Your task to perform on an android device: turn off javascript in the chrome app Image 0: 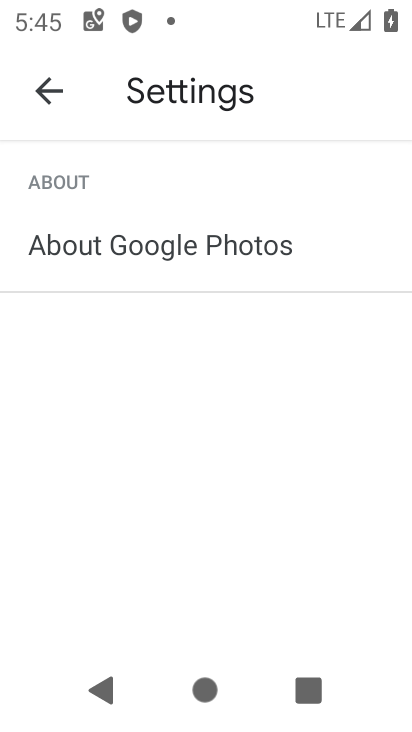
Step 0: press home button
Your task to perform on an android device: turn off javascript in the chrome app Image 1: 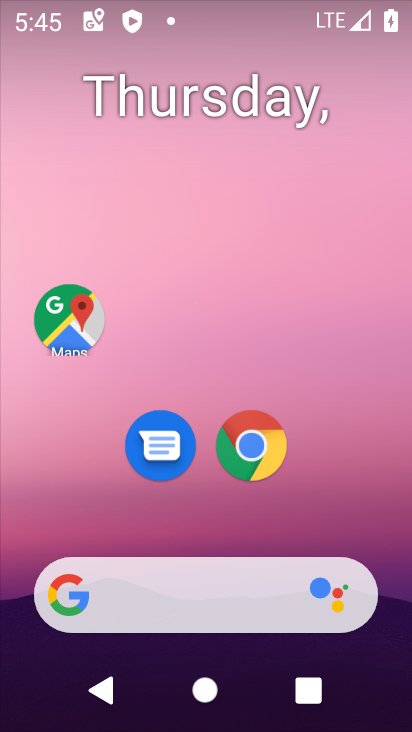
Step 1: click (265, 445)
Your task to perform on an android device: turn off javascript in the chrome app Image 2: 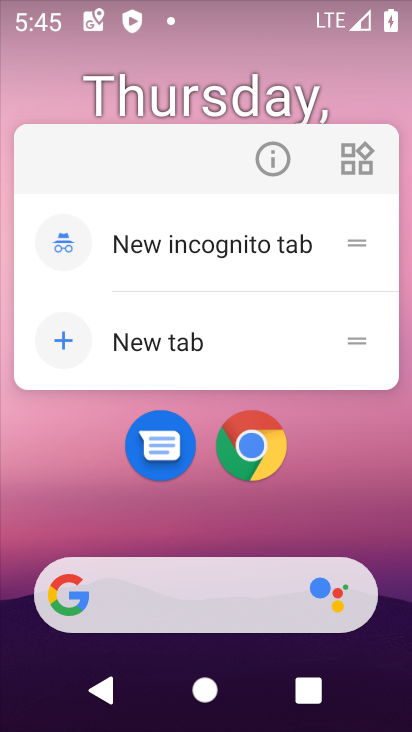
Step 2: click (253, 446)
Your task to perform on an android device: turn off javascript in the chrome app Image 3: 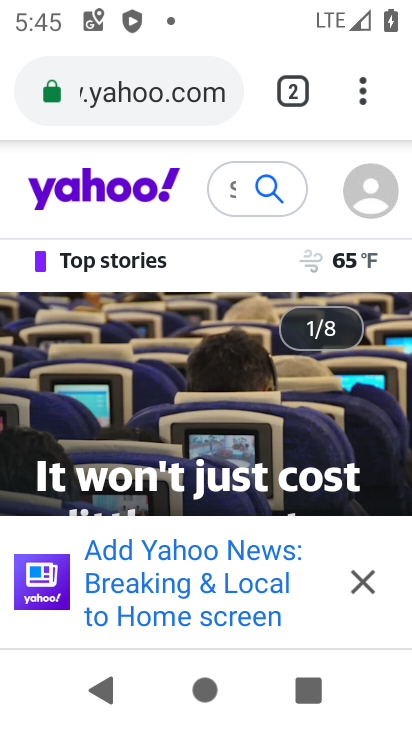
Step 3: click (353, 91)
Your task to perform on an android device: turn off javascript in the chrome app Image 4: 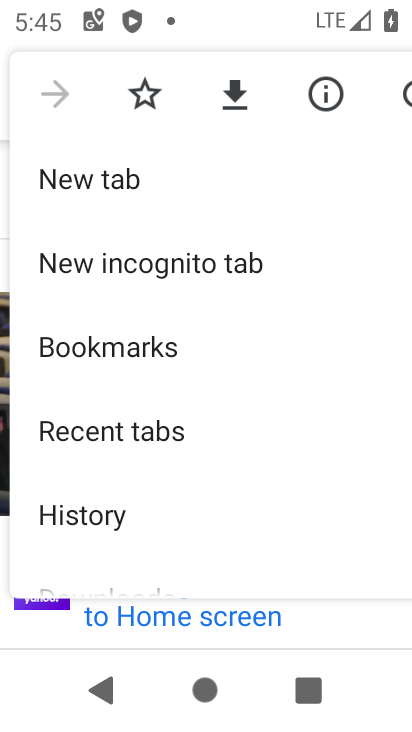
Step 4: drag from (353, 91) to (397, 448)
Your task to perform on an android device: turn off javascript in the chrome app Image 5: 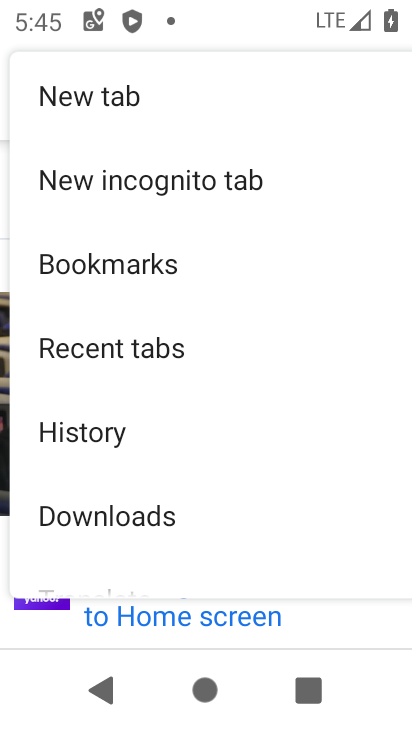
Step 5: drag from (200, 529) to (263, 253)
Your task to perform on an android device: turn off javascript in the chrome app Image 6: 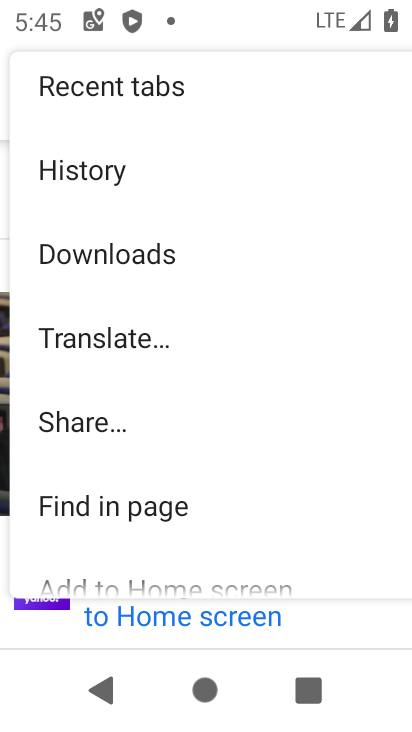
Step 6: drag from (211, 451) to (227, 233)
Your task to perform on an android device: turn off javascript in the chrome app Image 7: 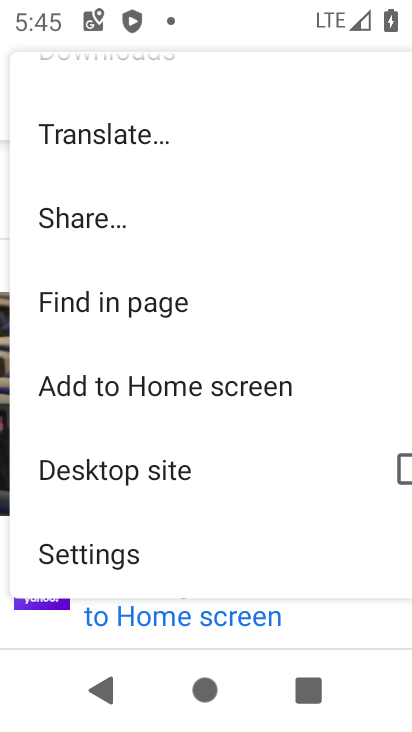
Step 7: click (105, 553)
Your task to perform on an android device: turn off javascript in the chrome app Image 8: 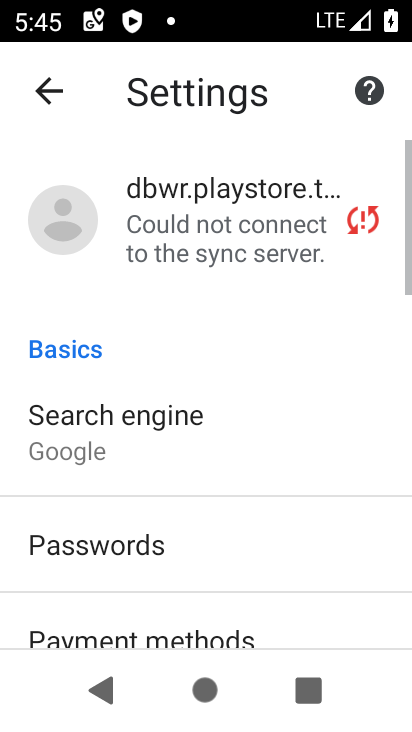
Step 8: drag from (235, 578) to (234, 293)
Your task to perform on an android device: turn off javascript in the chrome app Image 9: 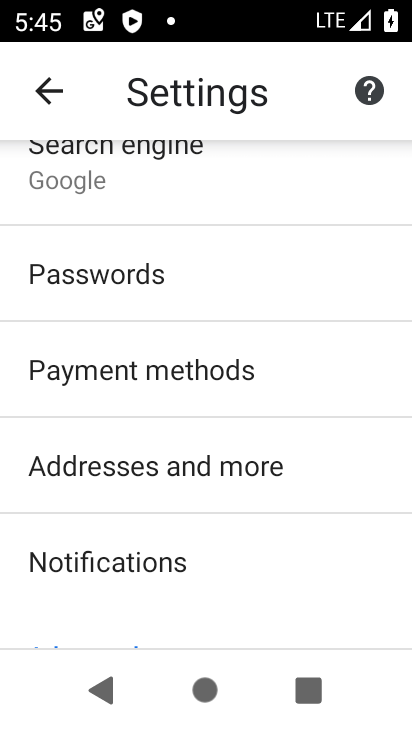
Step 9: drag from (257, 580) to (269, 271)
Your task to perform on an android device: turn off javascript in the chrome app Image 10: 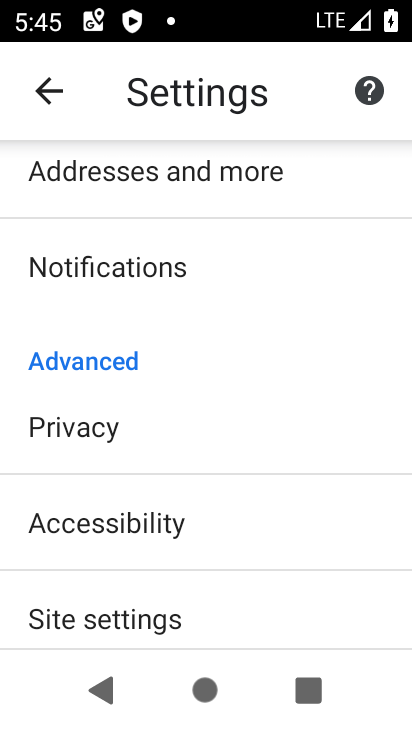
Step 10: click (157, 622)
Your task to perform on an android device: turn off javascript in the chrome app Image 11: 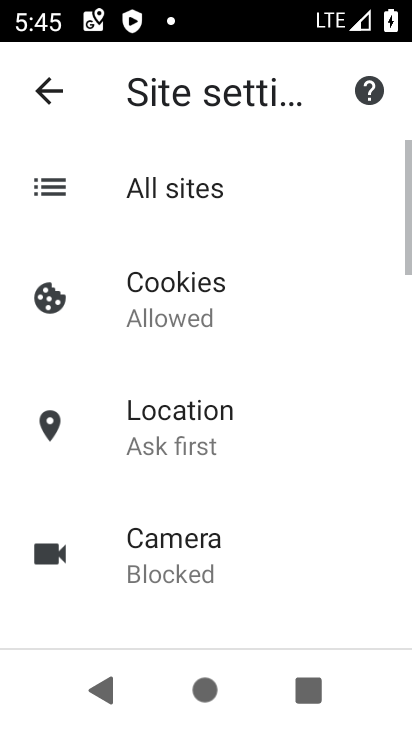
Step 11: drag from (300, 604) to (317, 263)
Your task to perform on an android device: turn off javascript in the chrome app Image 12: 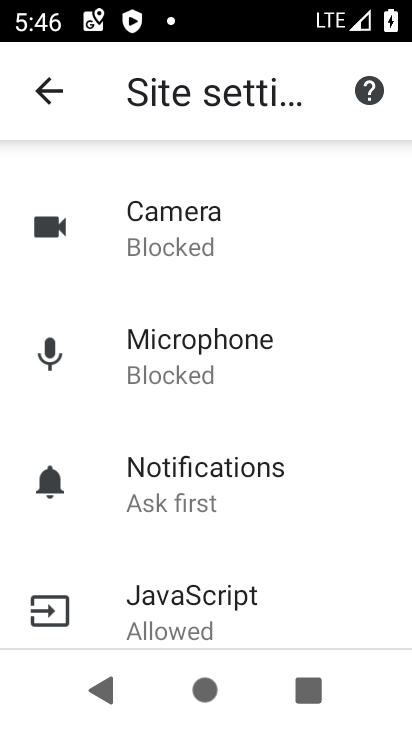
Step 12: click (203, 609)
Your task to perform on an android device: turn off javascript in the chrome app Image 13: 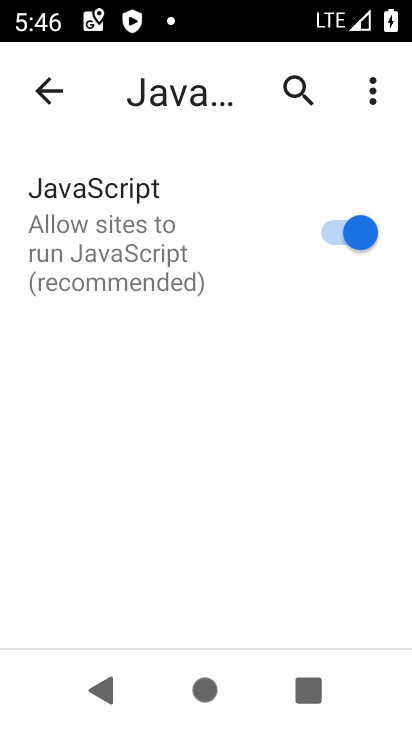
Step 13: click (335, 229)
Your task to perform on an android device: turn off javascript in the chrome app Image 14: 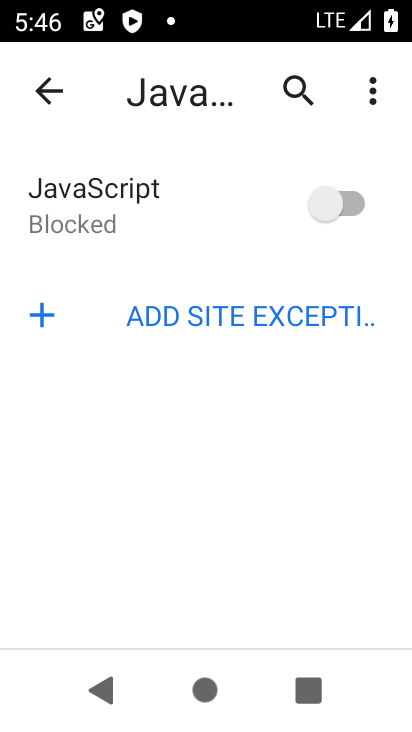
Step 14: task complete